Your task to perform on an android device: turn off improve location accuracy Image 0: 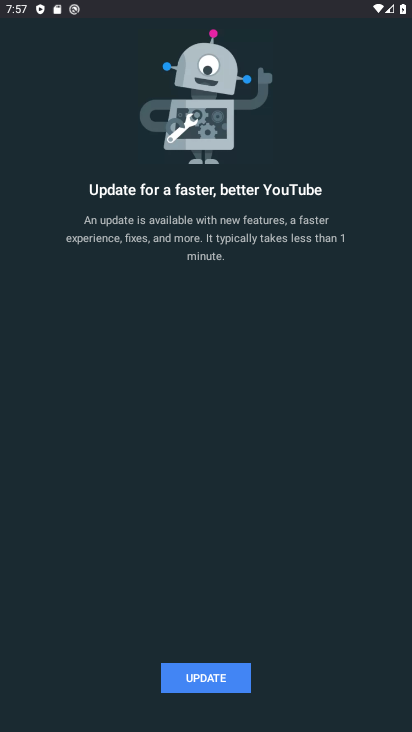
Step 0: press home button
Your task to perform on an android device: turn off improve location accuracy Image 1: 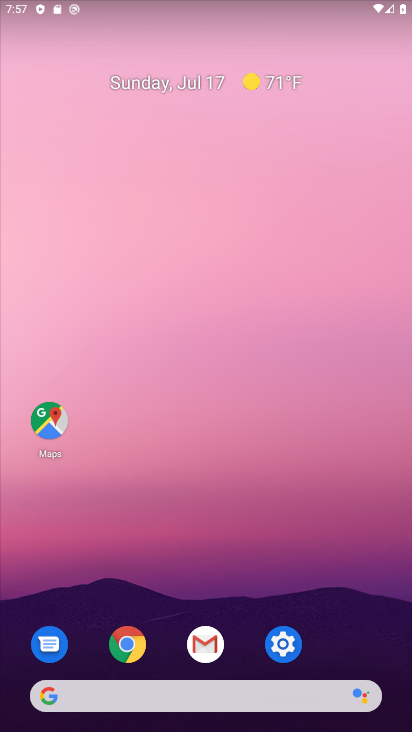
Step 1: click (286, 641)
Your task to perform on an android device: turn off improve location accuracy Image 2: 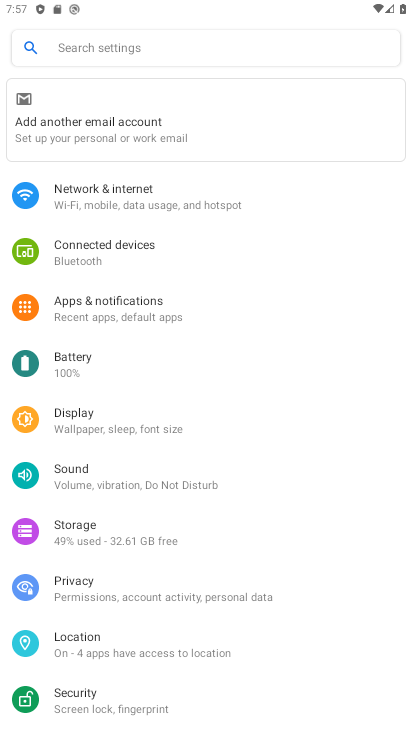
Step 2: click (147, 57)
Your task to perform on an android device: turn off improve location accuracy Image 3: 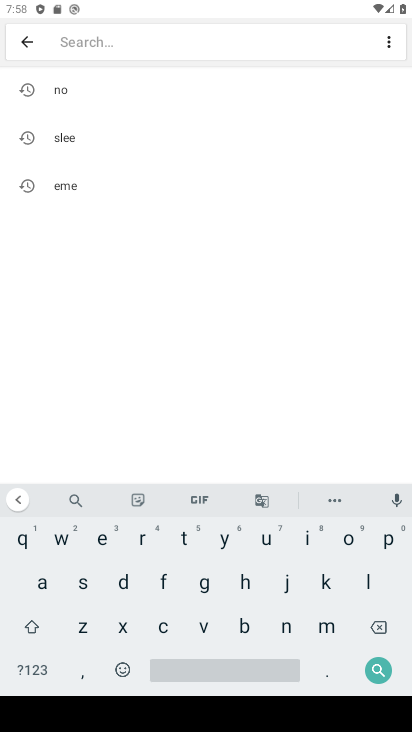
Step 3: click (20, 38)
Your task to perform on an android device: turn off improve location accuracy Image 4: 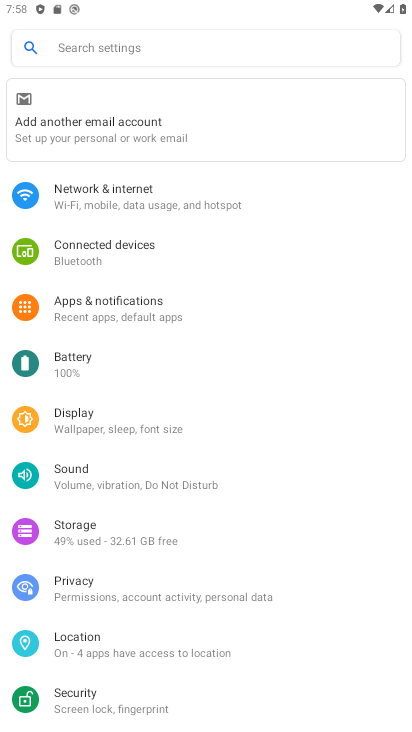
Step 4: click (110, 640)
Your task to perform on an android device: turn off improve location accuracy Image 5: 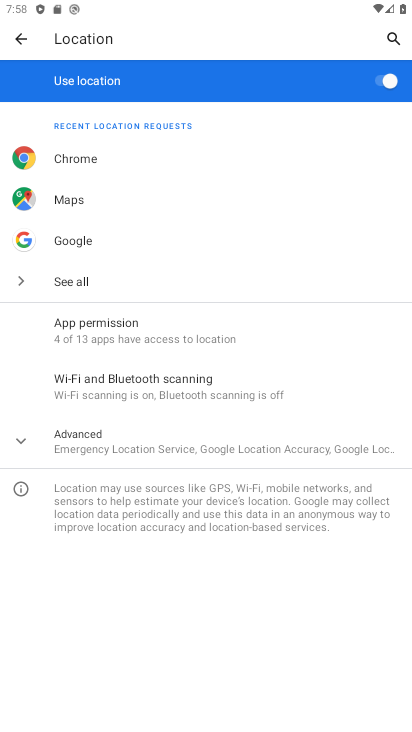
Step 5: click (20, 447)
Your task to perform on an android device: turn off improve location accuracy Image 6: 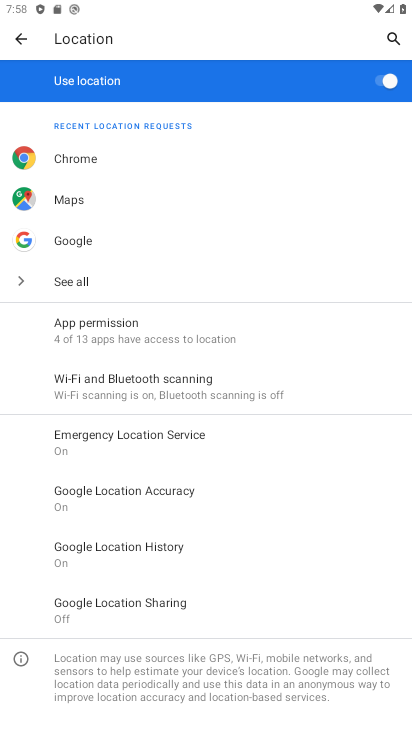
Step 6: click (166, 503)
Your task to perform on an android device: turn off improve location accuracy Image 7: 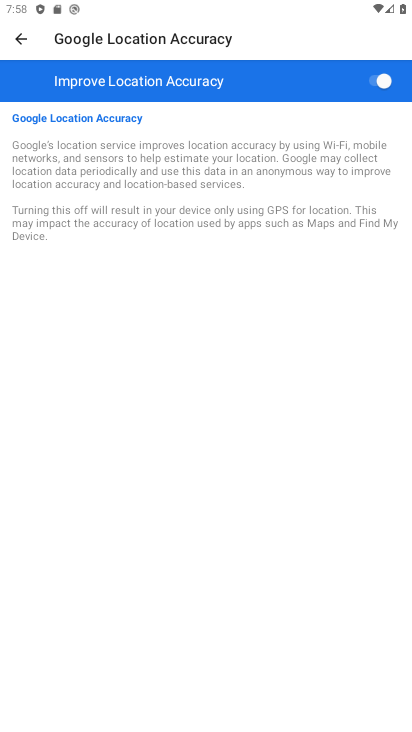
Step 7: click (371, 86)
Your task to perform on an android device: turn off improve location accuracy Image 8: 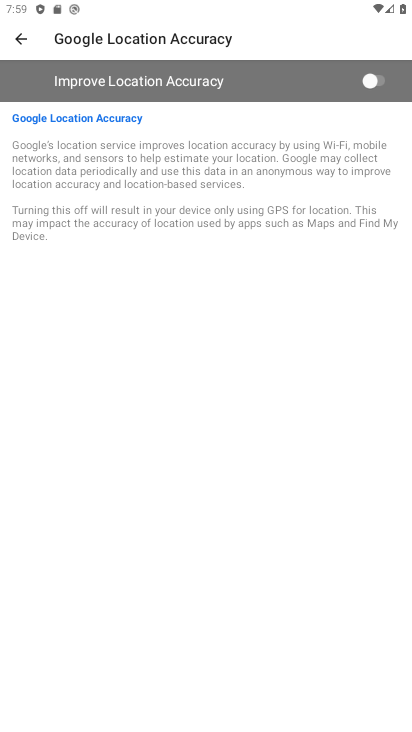
Step 8: task complete